Your task to perform on an android device: Go to Maps Image 0: 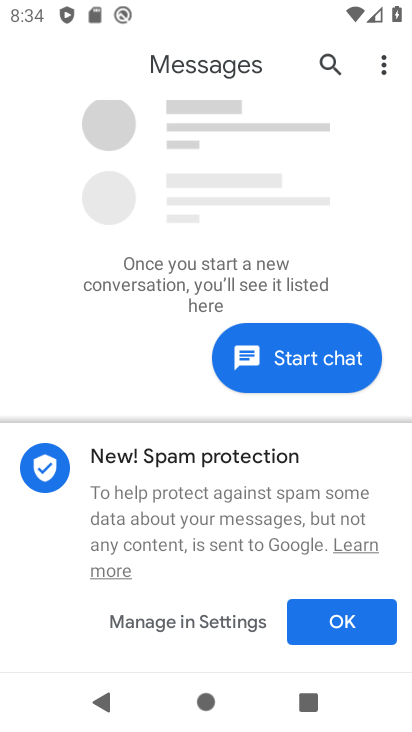
Step 0: press home button
Your task to perform on an android device: Go to Maps Image 1: 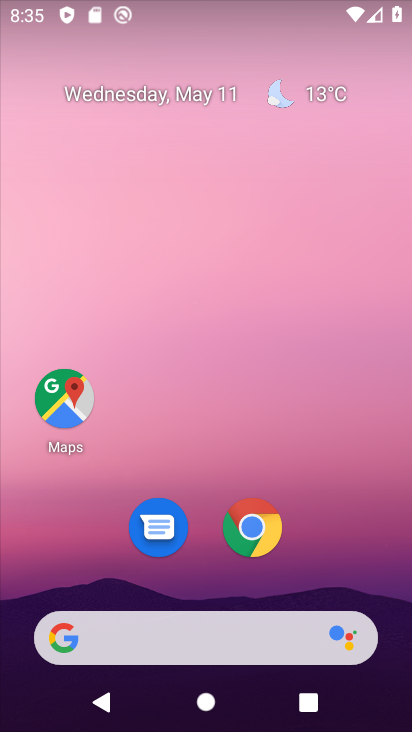
Step 1: click (88, 395)
Your task to perform on an android device: Go to Maps Image 2: 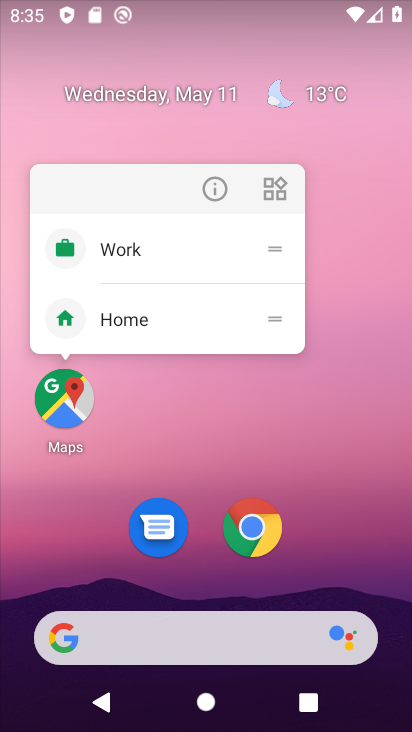
Step 2: click (57, 409)
Your task to perform on an android device: Go to Maps Image 3: 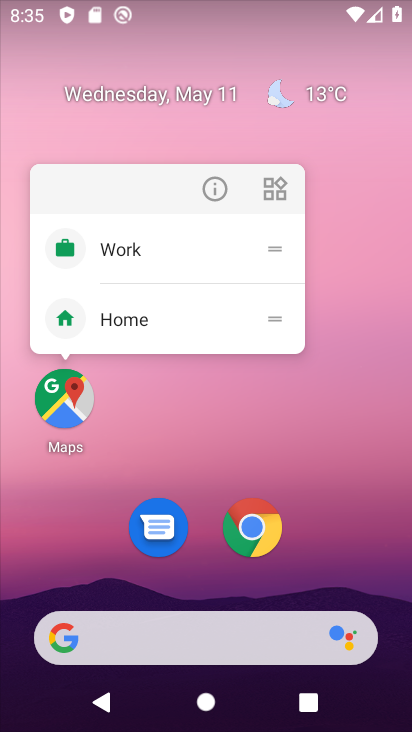
Step 3: click (57, 409)
Your task to perform on an android device: Go to Maps Image 4: 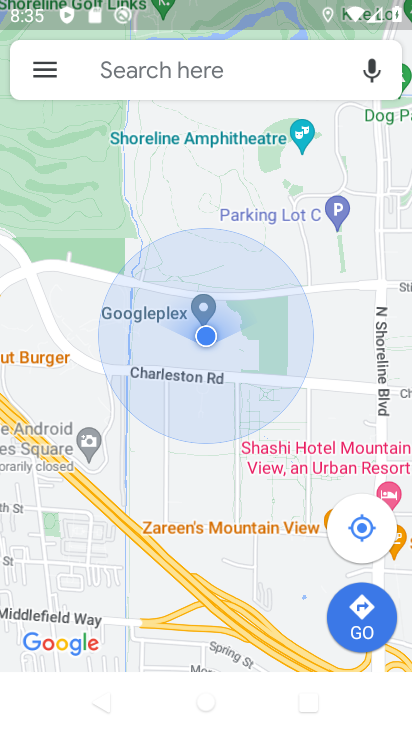
Step 4: task complete